Your task to perform on an android device: Set the phone to "Do not disturb". Image 0: 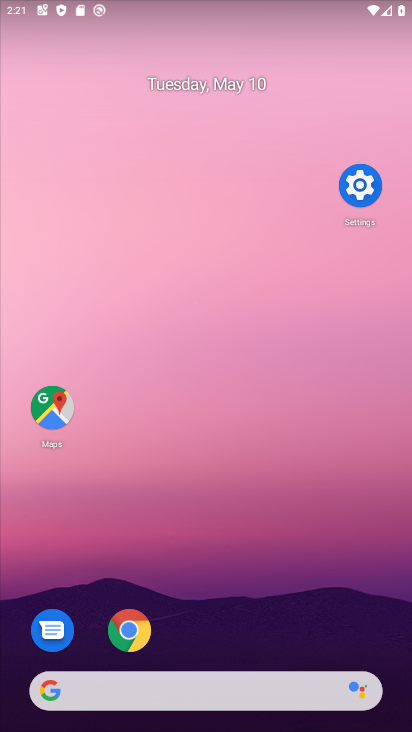
Step 0: drag from (283, 597) to (168, 0)
Your task to perform on an android device: Set the phone to "Do not disturb". Image 1: 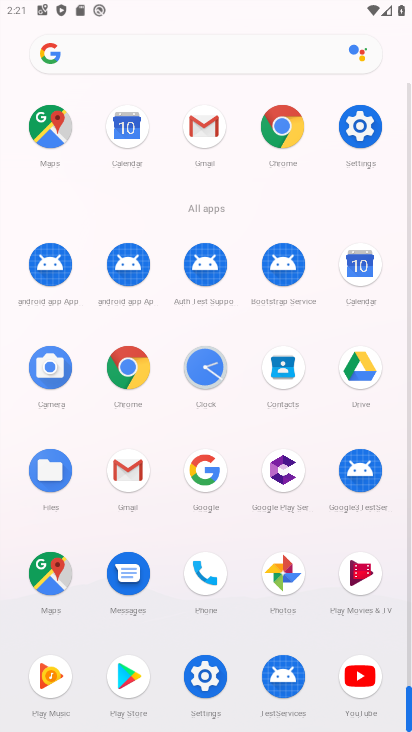
Step 1: click (355, 122)
Your task to perform on an android device: Set the phone to "Do not disturb". Image 2: 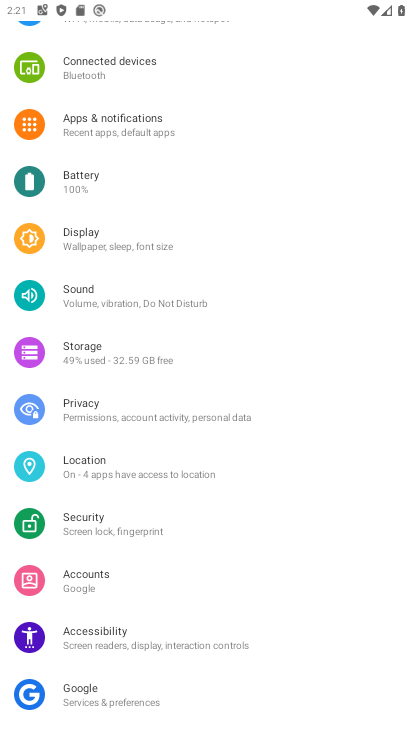
Step 2: click (110, 298)
Your task to perform on an android device: Set the phone to "Do not disturb". Image 3: 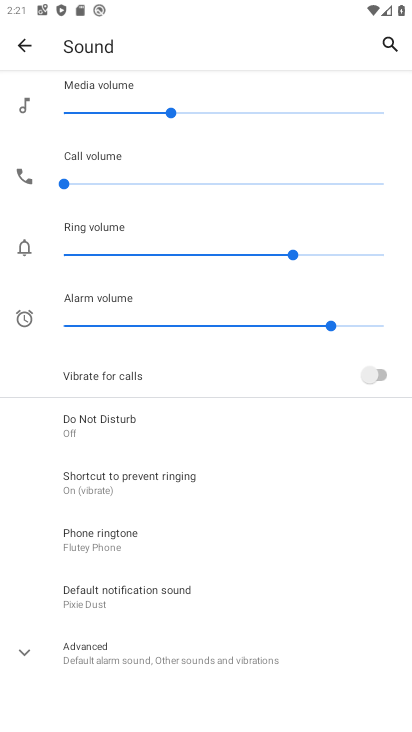
Step 3: click (95, 412)
Your task to perform on an android device: Set the phone to "Do not disturb". Image 4: 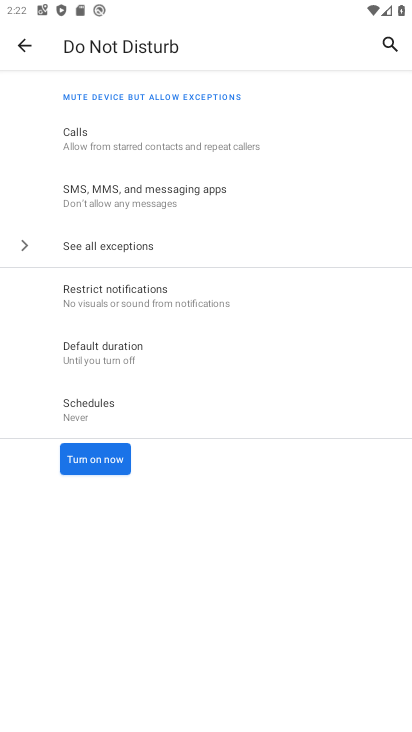
Step 4: click (99, 466)
Your task to perform on an android device: Set the phone to "Do not disturb". Image 5: 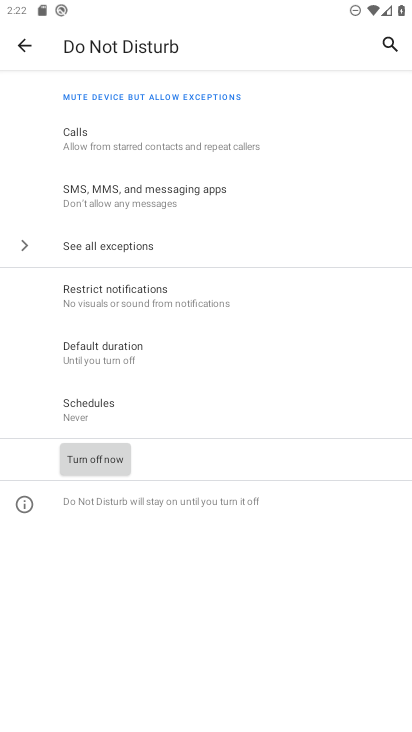
Step 5: task complete